Your task to perform on an android device: turn off smart reply in the gmail app Image 0: 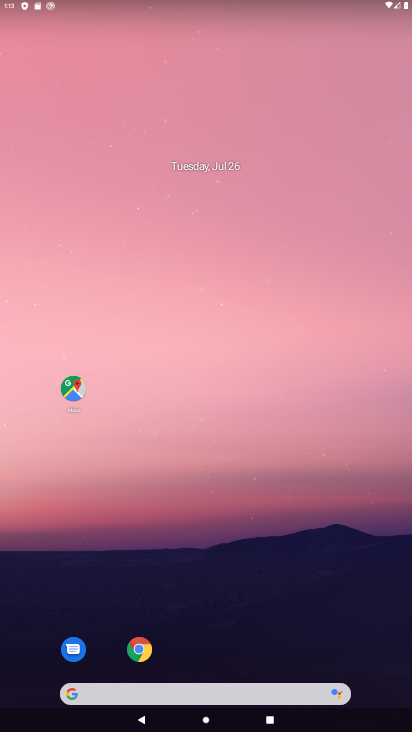
Step 0: press home button
Your task to perform on an android device: turn off smart reply in the gmail app Image 1: 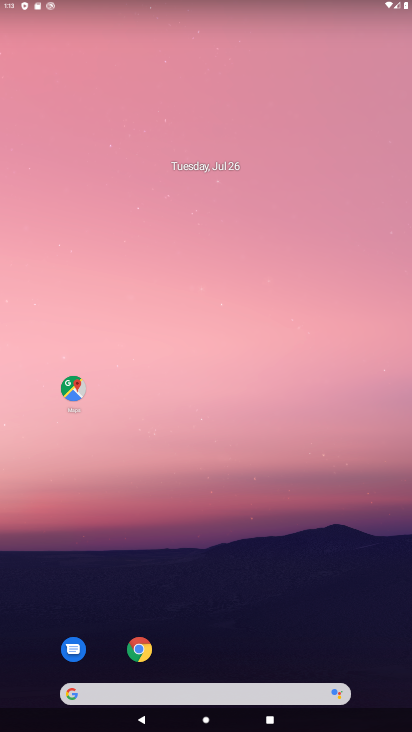
Step 1: drag from (214, 653) to (275, 61)
Your task to perform on an android device: turn off smart reply in the gmail app Image 2: 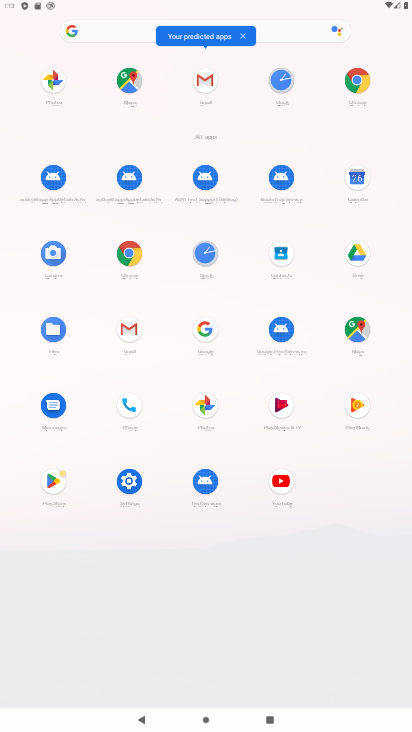
Step 2: click (202, 73)
Your task to perform on an android device: turn off smart reply in the gmail app Image 3: 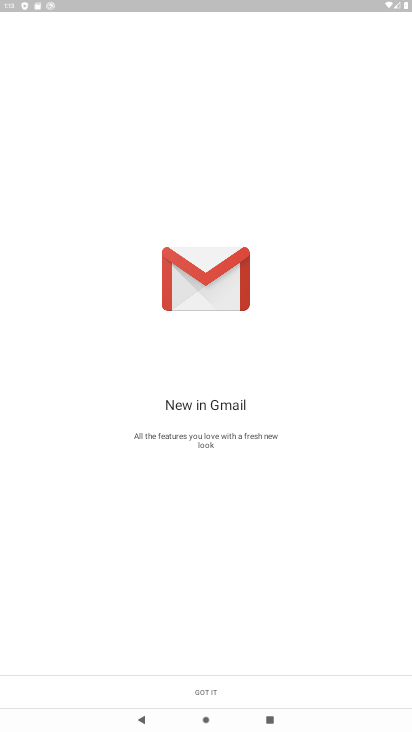
Step 3: click (205, 689)
Your task to perform on an android device: turn off smart reply in the gmail app Image 4: 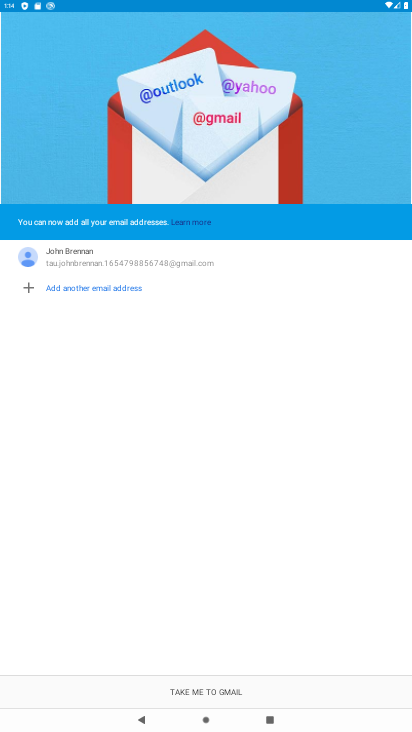
Step 4: click (205, 687)
Your task to perform on an android device: turn off smart reply in the gmail app Image 5: 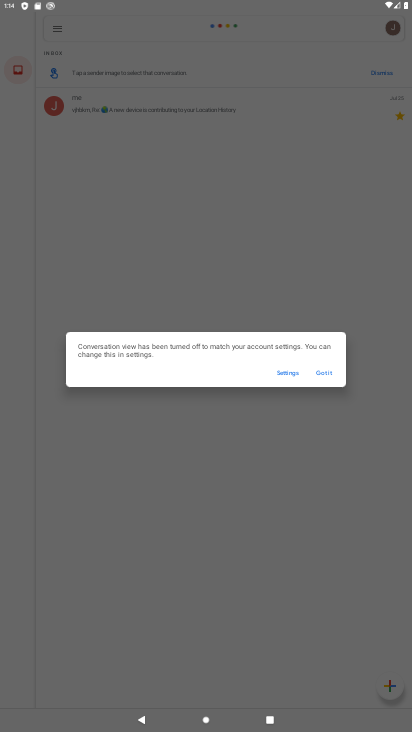
Step 5: click (324, 368)
Your task to perform on an android device: turn off smart reply in the gmail app Image 6: 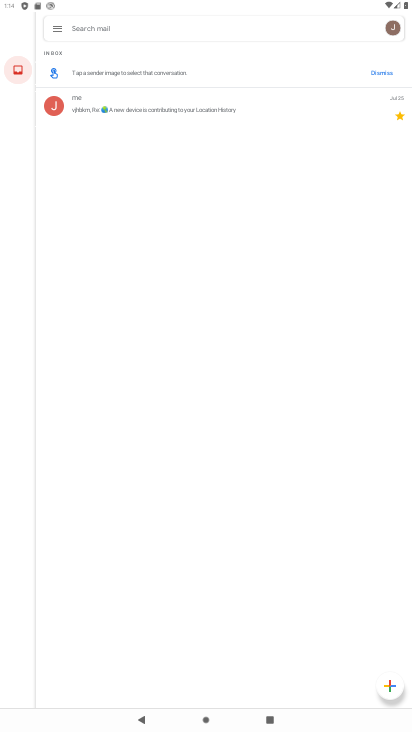
Step 6: click (53, 28)
Your task to perform on an android device: turn off smart reply in the gmail app Image 7: 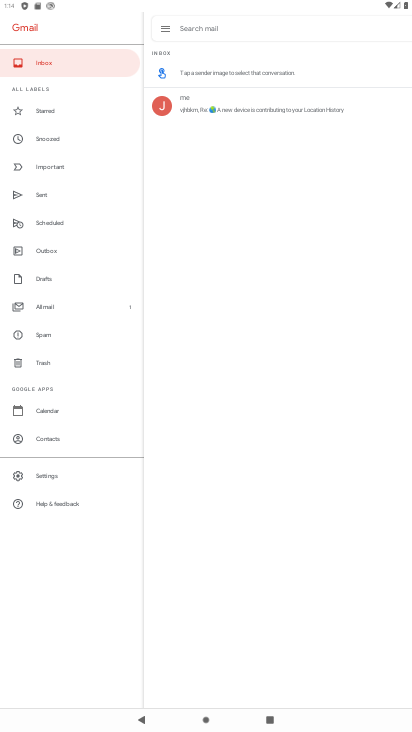
Step 7: click (51, 467)
Your task to perform on an android device: turn off smart reply in the gmail app Image 8: 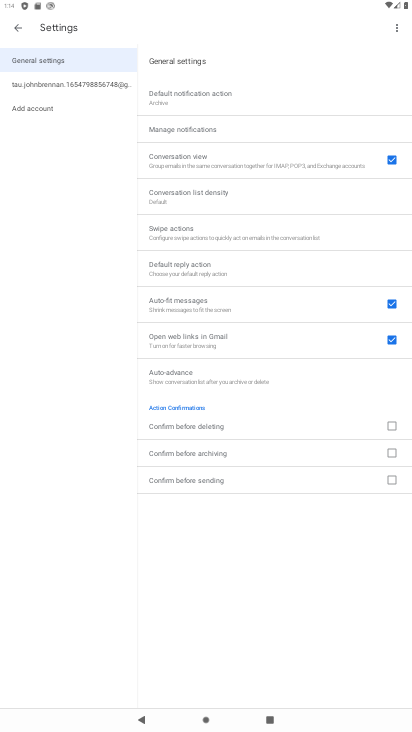
Step 8: click (51, 78)
Your task to perform on an android device: turn off smart reply in the gmail app Image 9: 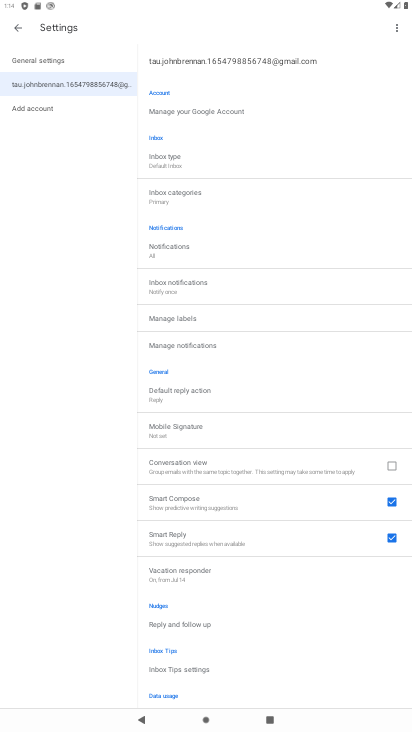
Step 9: click (384, 531)
Your task to perform on an android device: turn off smart reply in the gmail app Image 10: 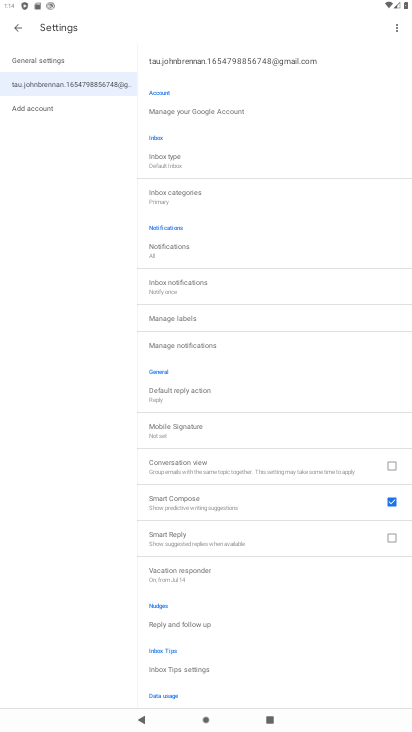
Step 10: task complete